Your task to perform on an android device: Open Wikipedia Image 0: 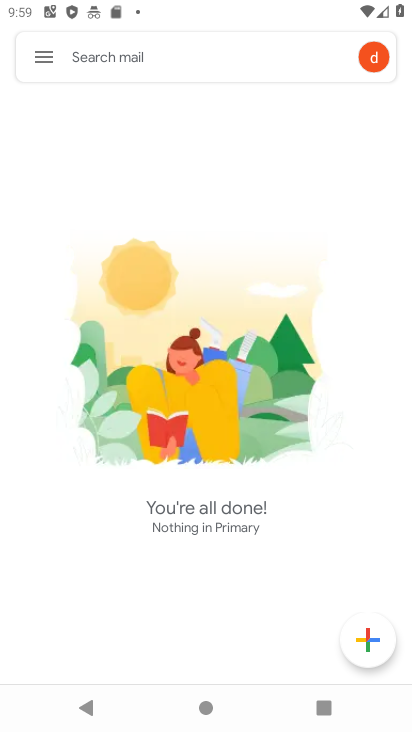
Step 0: press home button
Your task to perform on an android device: Open Wikipedia Image 1: 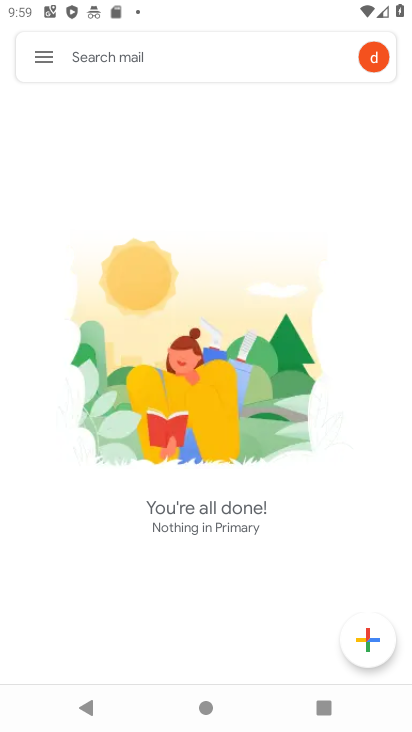
Step 1: press home button
Your task to perform on an android device: Open Wikipedia Image 2: 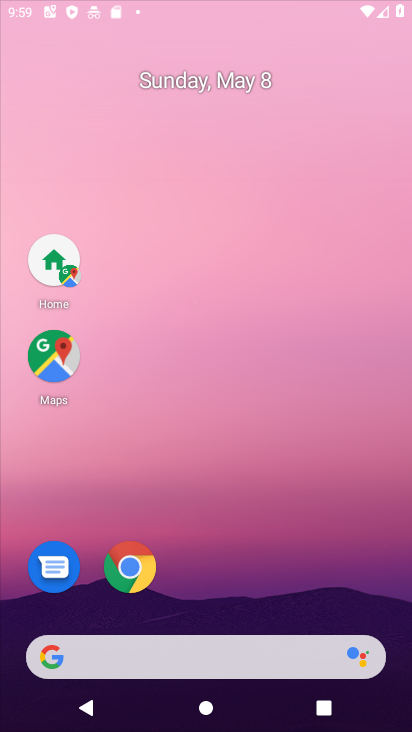
Step 2: press home button
Your task to perform on an android device: Open Wikipedia Image 3: 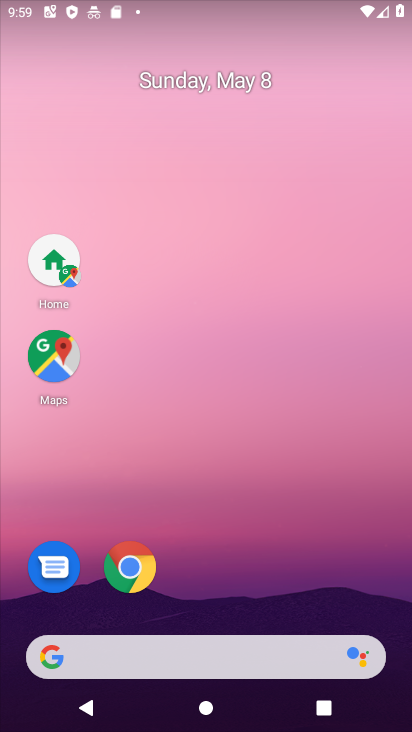
Step 3: drag from (316, 583) to (71, 26)
Your task to perform on an android device: Open Wikipedia Image 4: 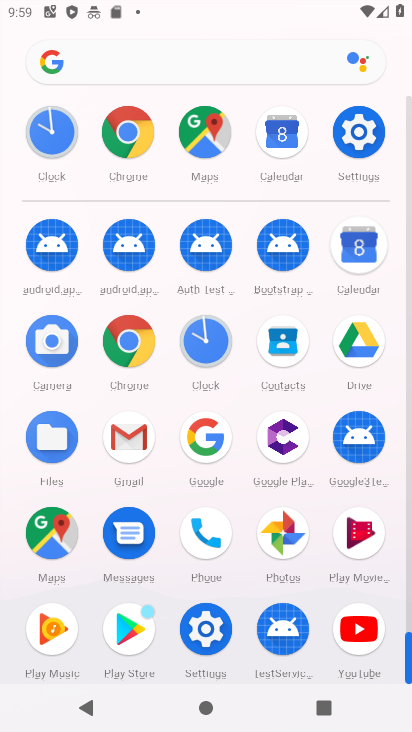
Step 4: click (132, 135)
Your task to perform on an android device: Open Wikipedia Image 5: 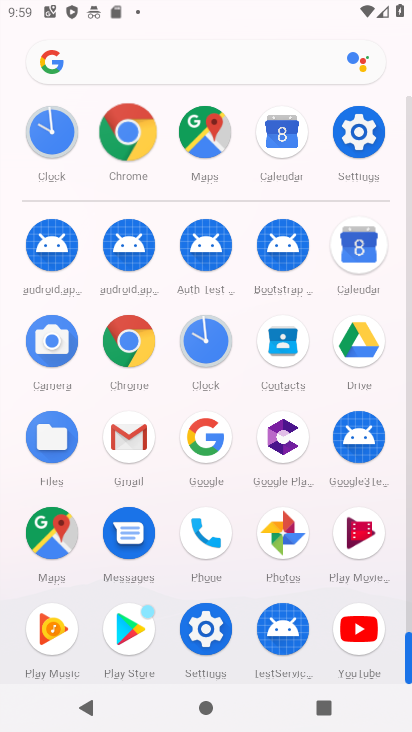
Step 5: click (132, 135)
Your task to perform on an android device: Open Wikipedia Image 6: 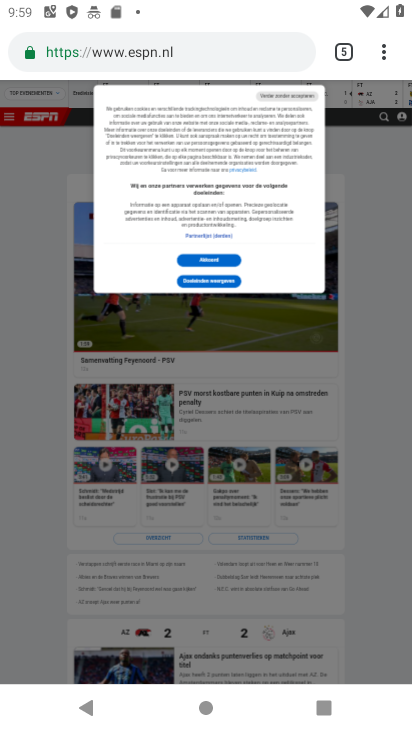
Step 6: drag from (373, 55) to (199, 97)
Your task to perform on an android device: Open Wikipedia Image 7: 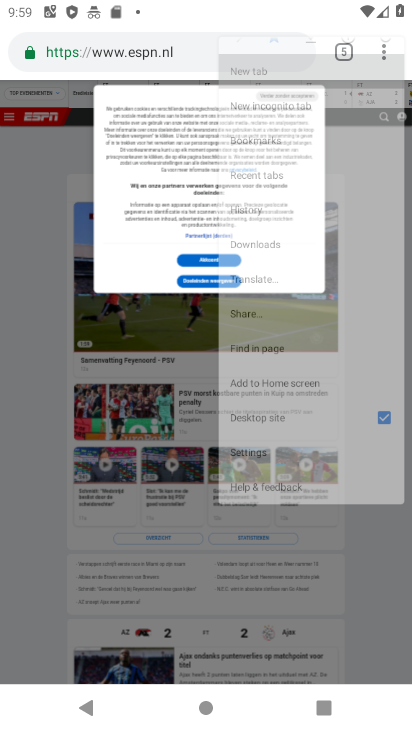
Step 7: click (210, 92)
Your task to perform on an android device: Open Wikipedia Image 8: 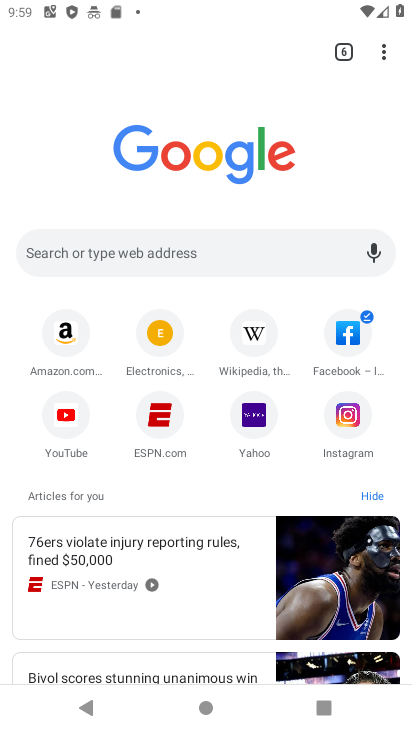
Step 8: click (259, 330)
Your task to perform on an android device: Open Wikipedia Image 9: 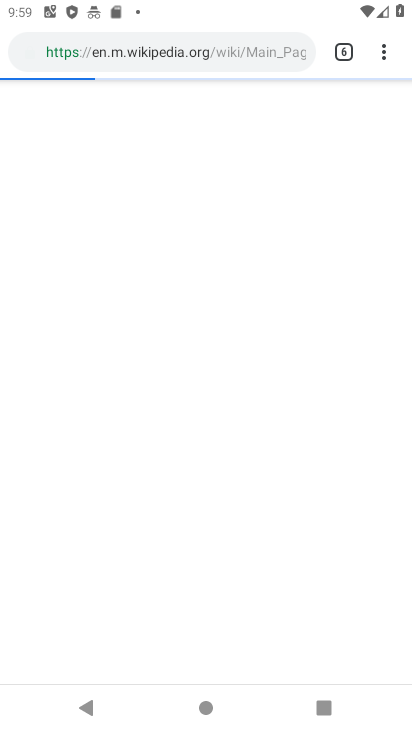
Step 9: click (256, 334)
Your task to perform on an android device: Open Wikipedia Image 10: 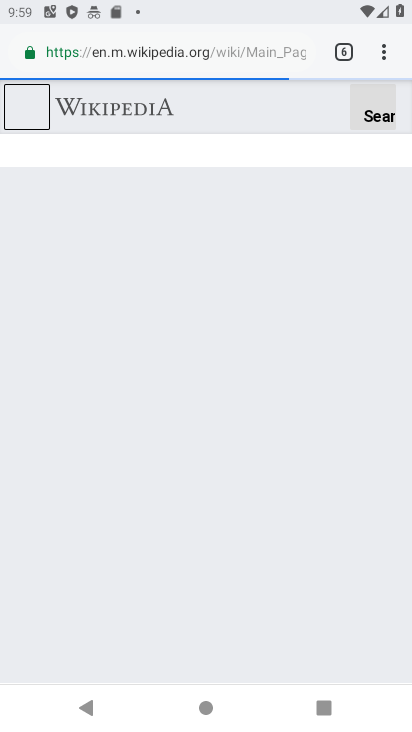
Step 10: click (256, 335)
Your task to perform on an android device: Open Wikipedia Image 11: 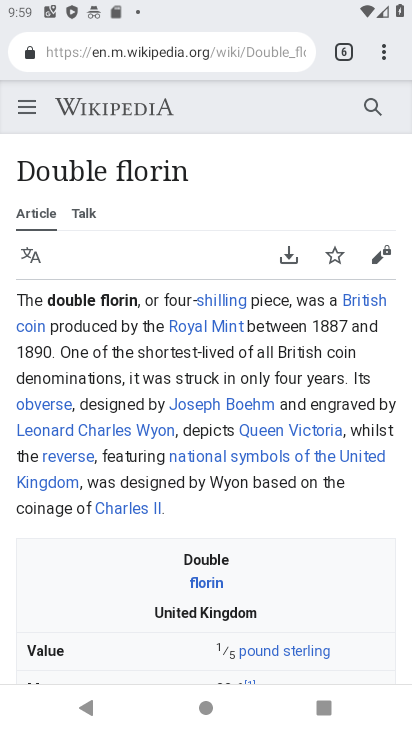
Step 11: task complete